Your task to perform on an android device: Open maps Image 0: 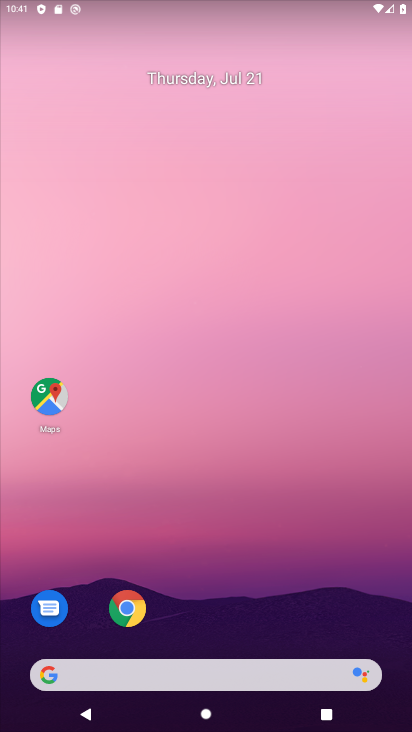
Step 0: click (56, 396)
Your task to perform on an android device: Open maps Image 1: 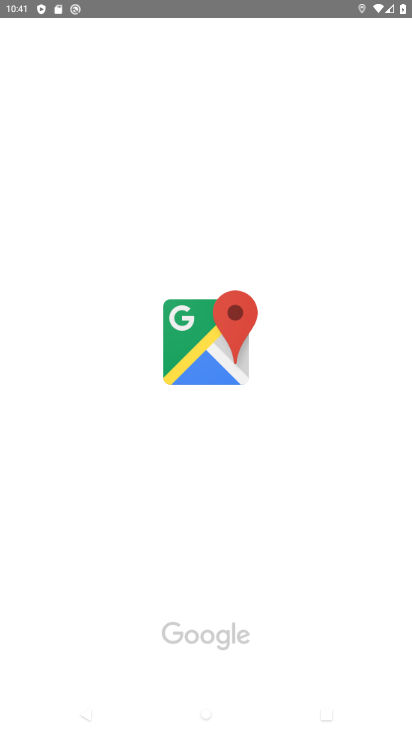
Step 1: task complete